Your task to perform on an android device: Search for Mexican restaurants on Maps Image 0: 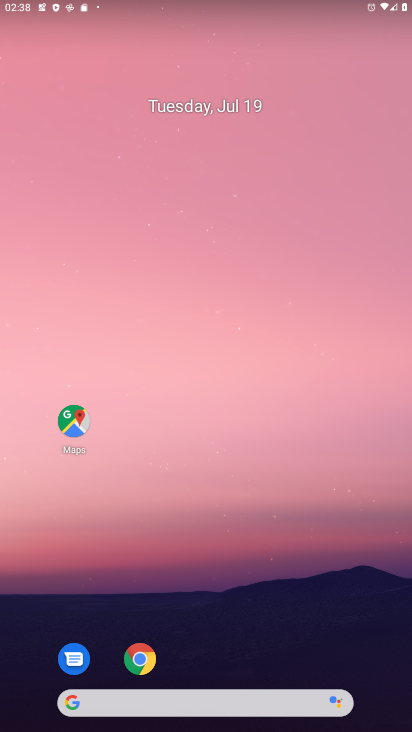
Step 0: press home button
Your task to perform on an android device: Search for Mexican restaurants on Maps Image 1: 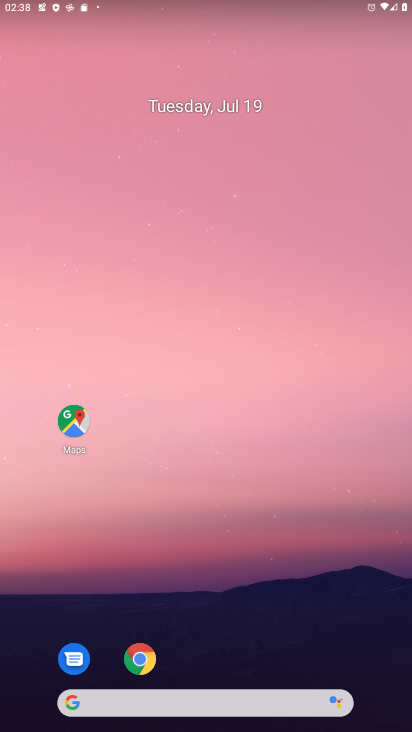
Step 1: drag from (227, 687) to (220, 159)
Your task to perform on an android device: Search for Mexican restaurants on Maps Image 2: 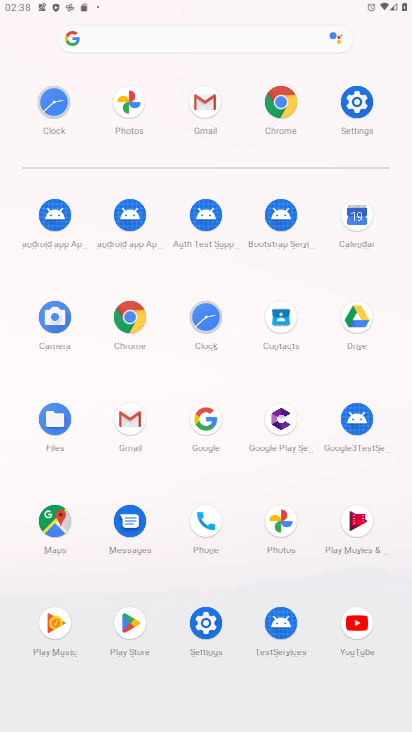
Step 2: click (57, 491)
Your task to perform on an android device: Search for Mexican restaurants on Maps Image 3: 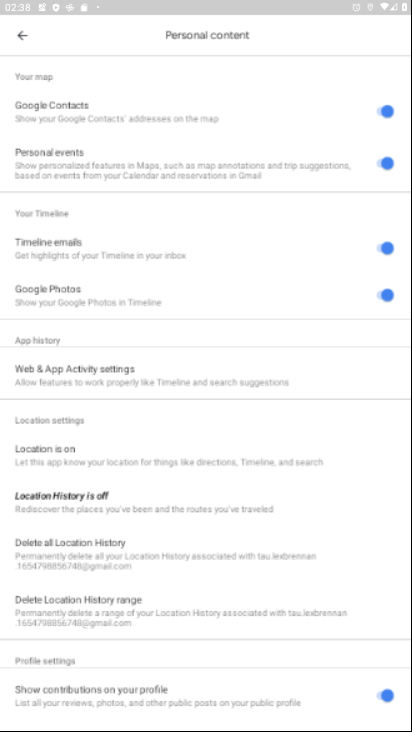
Step 3: click (17, 34)
Your task to perform on an android device: Search for Mexican restaurants on Maps Image 4: 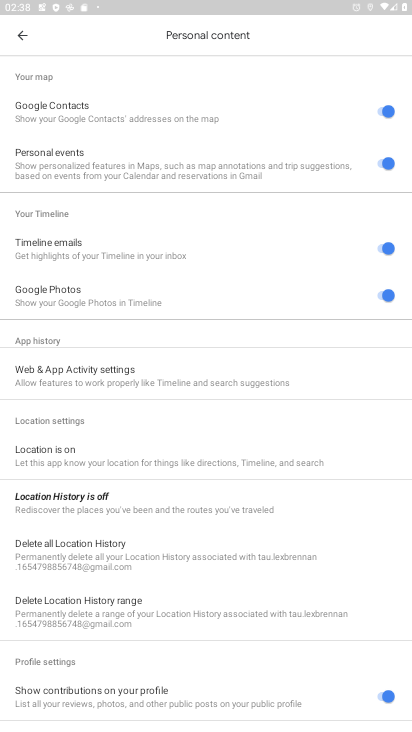
Step 4: click (17, 34)
Your task to perform on an android device: Search for Mexican restaurants on Maps Image 5: 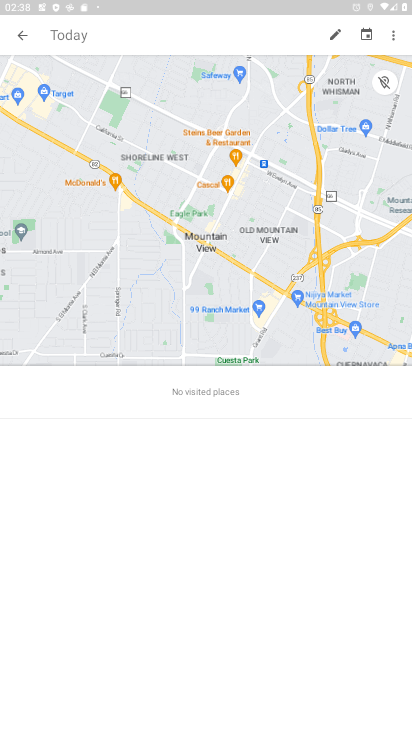
Step 5: click (29, 37)
Your task to perform on an android device: Search for Mexican restaurants on Maps Image 6: 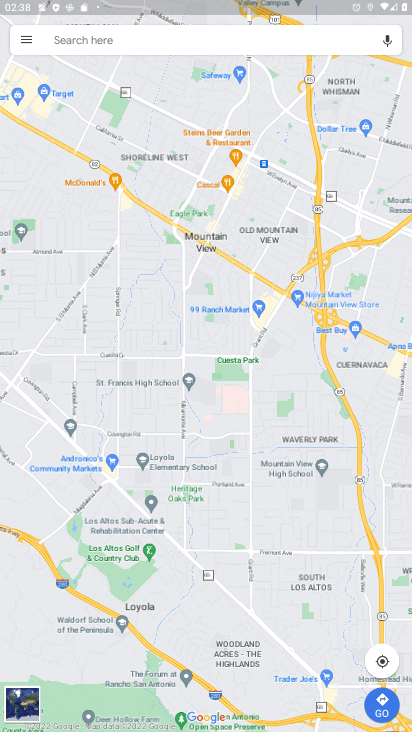
Step 6: click (164, 37)
Your task to perform on an android device: Search for Mexican restaurants on Maps Image 7: 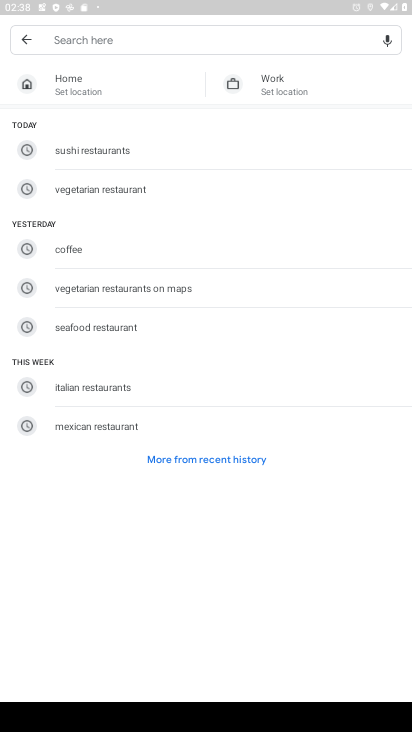
Step 7: type "Mexican restaurants "
Your task to perform on an android device: Search for Mexican restaurants on Maps Image 8: 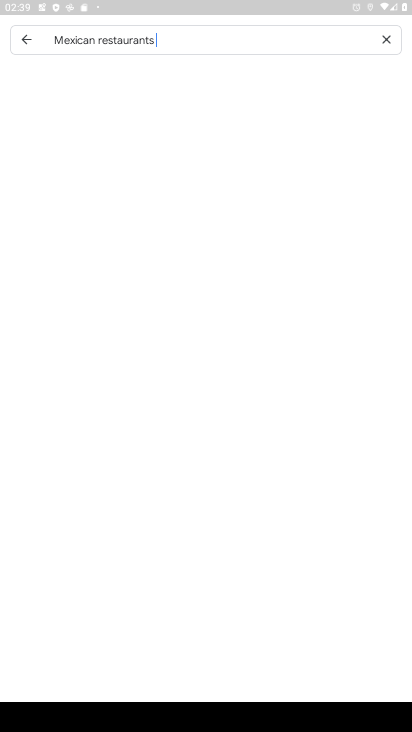
Step 8: type ""
Your task to perform on an android device: Search for Mexican restaurants on Maps Image 9: 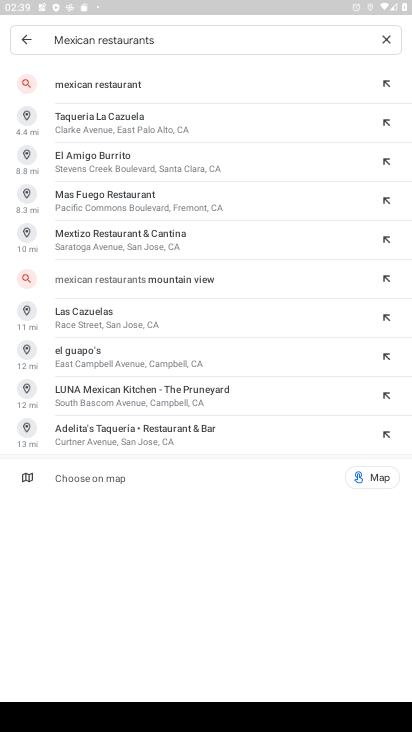
Step 9: click (114, 73)
Your task to perform on an android device: Search for Mexican restaurants on Maps Image 10: 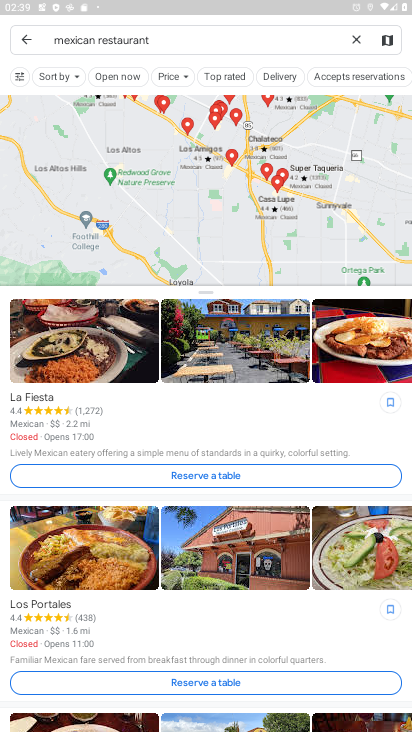
Step 10: task complete